Your task to perform on an android device: Open Amazon Image 0: 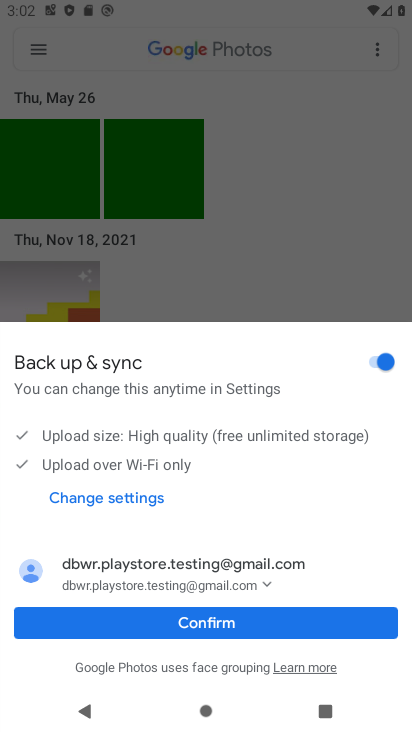
Step 0: press home button
Your task to perform on an android device: Open Amazon Image 1: 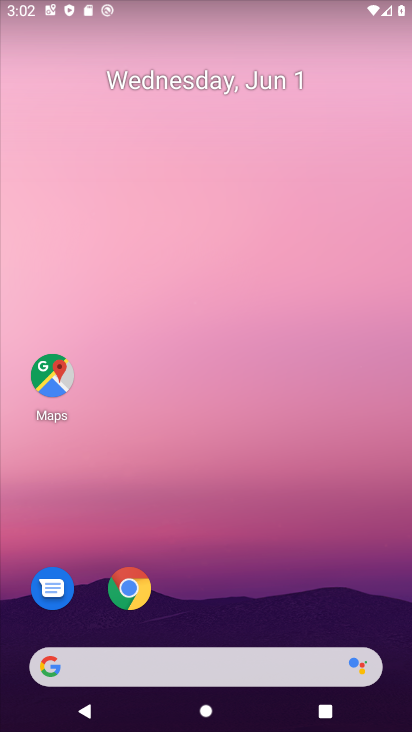
Step 1: click (128, 596)
Your task to perform on an android device: Open Amazon Image 2: 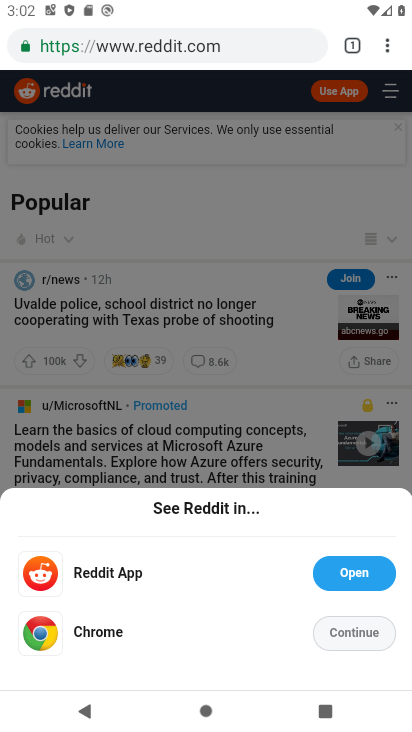
Step 2: click (343, 632)
Your task to perform on an android device: Open Amazon Image 3: 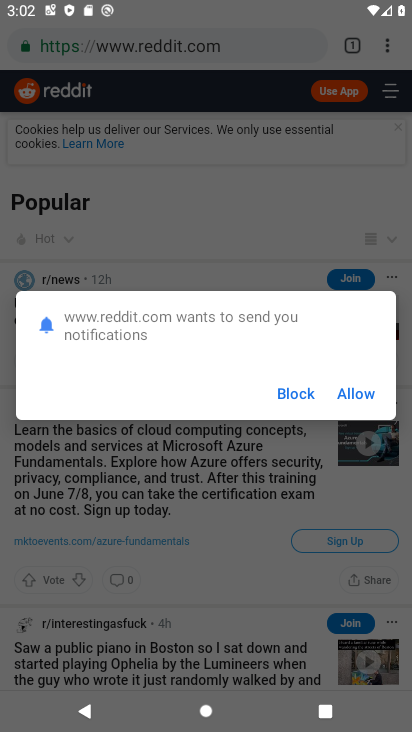
Step 3: click (301, 389)
Your task to perform on an android device: Open Amazon Image 4: 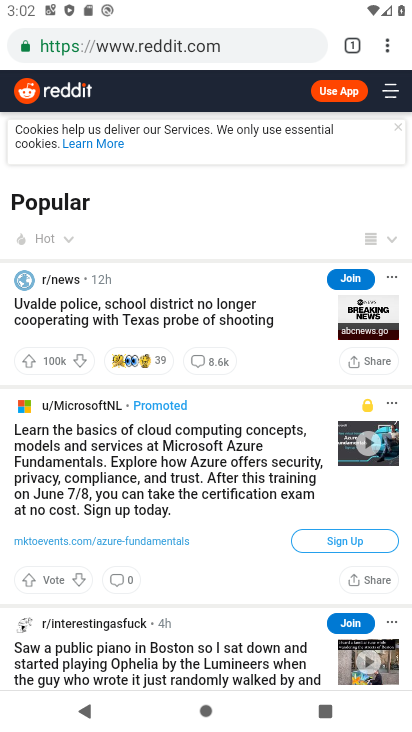
Step 4: click (257, 48)
Your task to perform on an android device: Open Amazon Image 5: 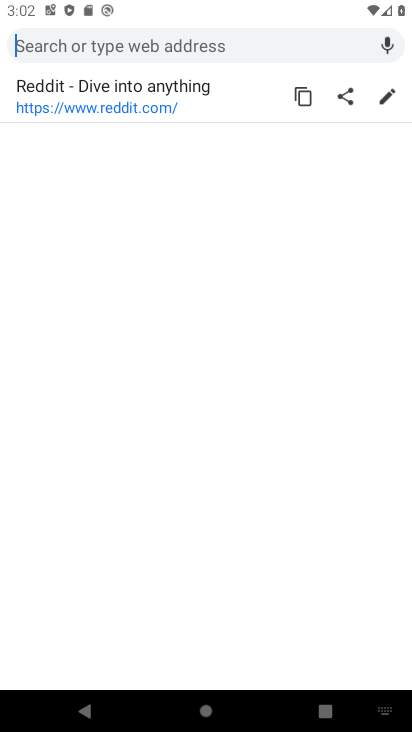
Step 5: type "amazon"
Your task to perform on an android device: Open Amazon Image 6: 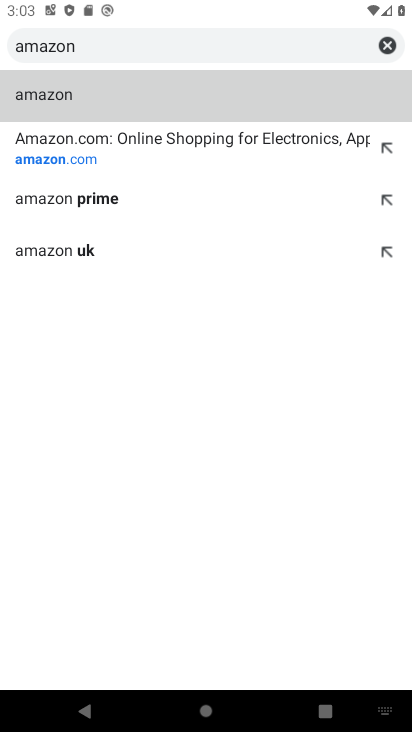
Step 6: click (246, 147)
Your task to perform on an android device: Open Amazon Image 7: 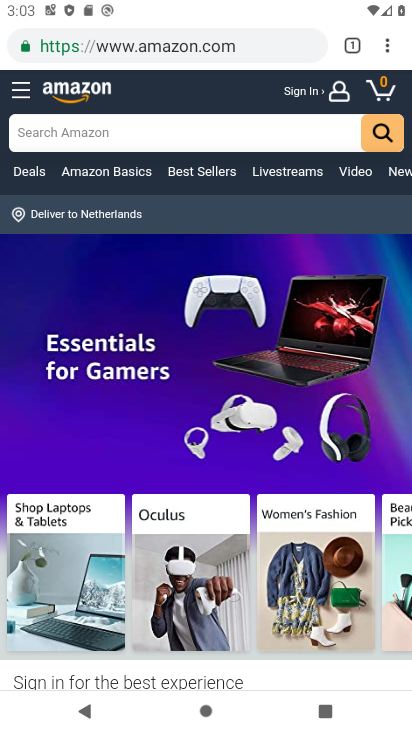
Step 7: task complete